Your task to perform on an android device: open chrome and create a bookmark for the current page Image 0: 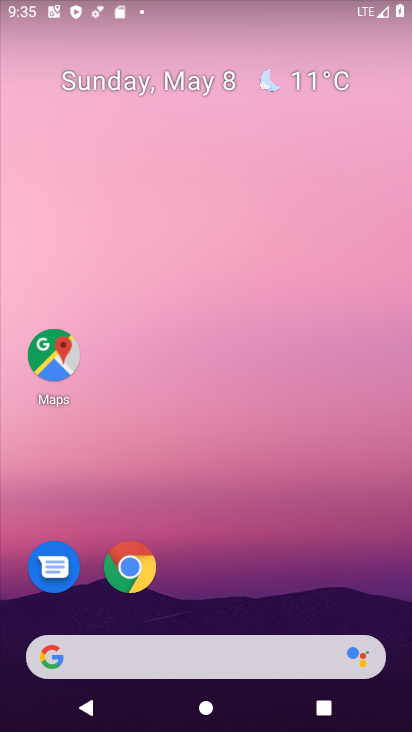
Step 0: click (136, 560)
Your task to perform on an android device: open chrome and create a bookmark for the current page Image 1: 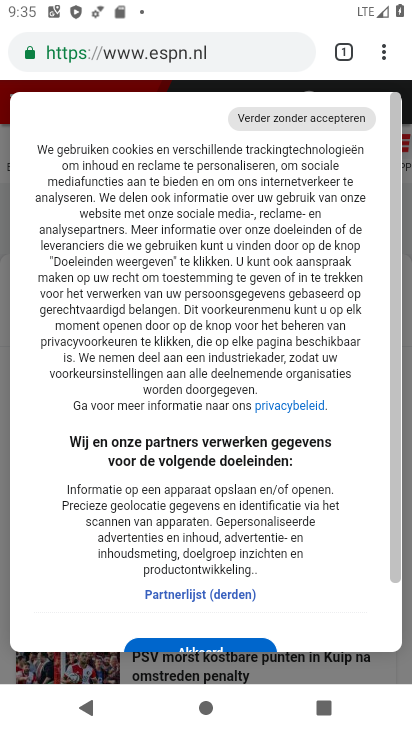
Step 1: click (342, 46)
Your task to perform on an android device: open chrome and create a bookmark for the current page Image 2: 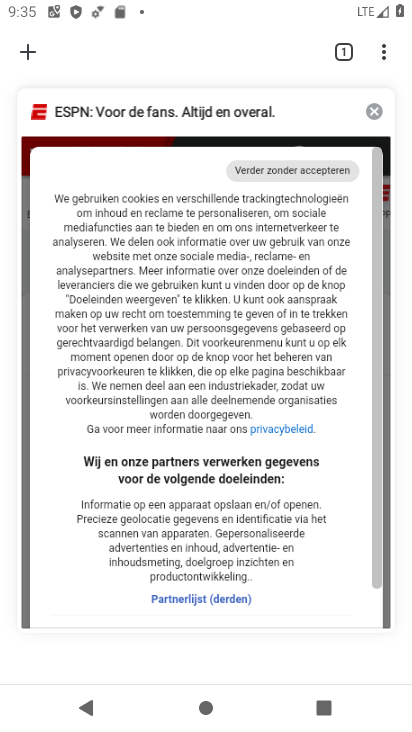
Step 2: click (215, 124)
Your task to perform on an android device: open chrome and create a bookmark for the current page Image 3: 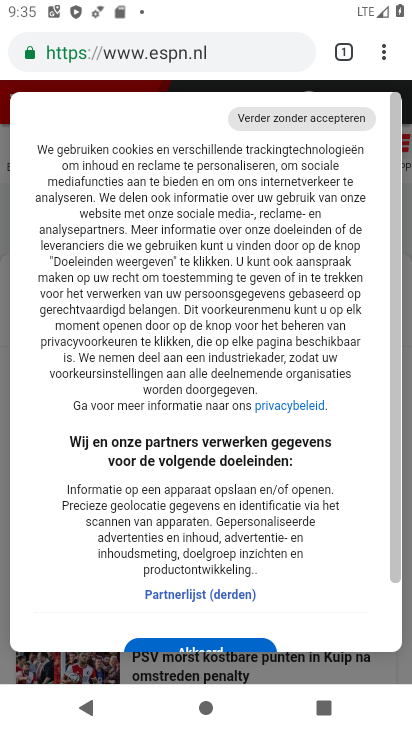
Step 3: task complete